Your task to perform on an android device: turn notification dots on Image 0: 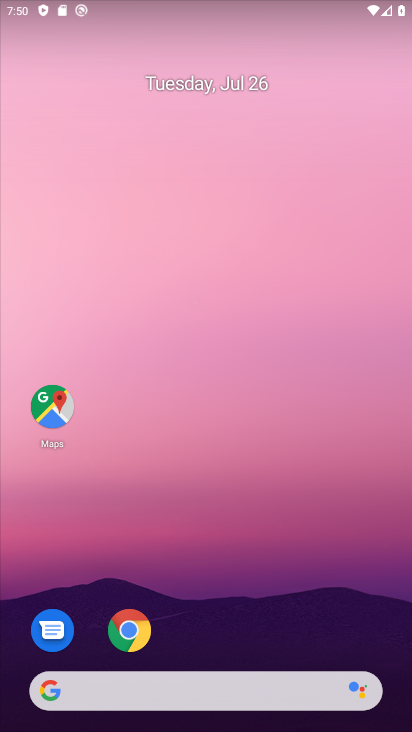
Step 0: drag from (198, 689) to (258, 198)
Your task to perform on an android device: turn notification dots on Image 1: 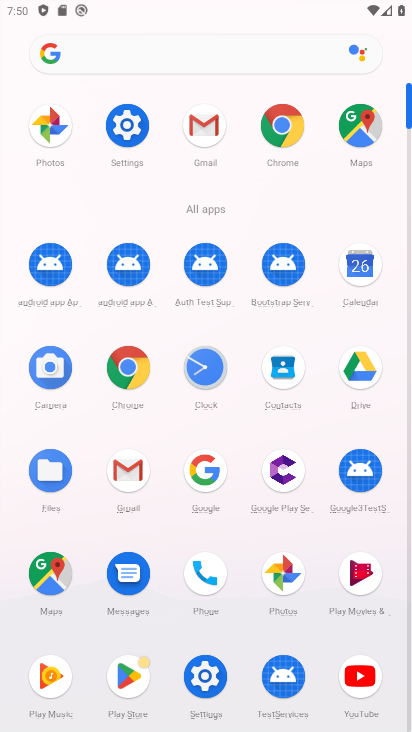
Step 1: click (205, 675)
Your task to perform on an android device: turn notification dots on Image 2: 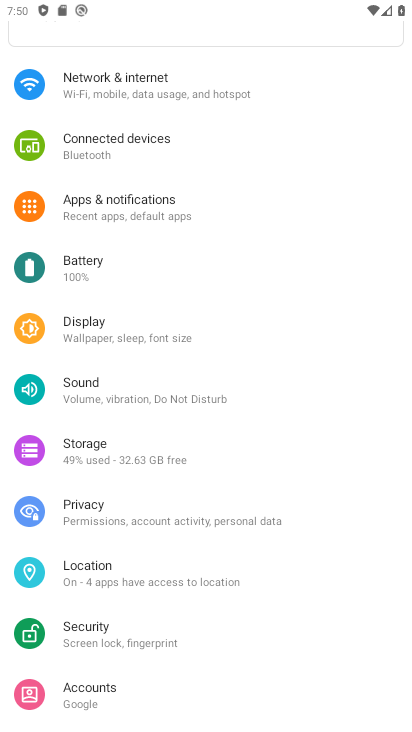
Step 2: click (139, 213)
Your task to perform on an android device: turn notification dots on Image 3: 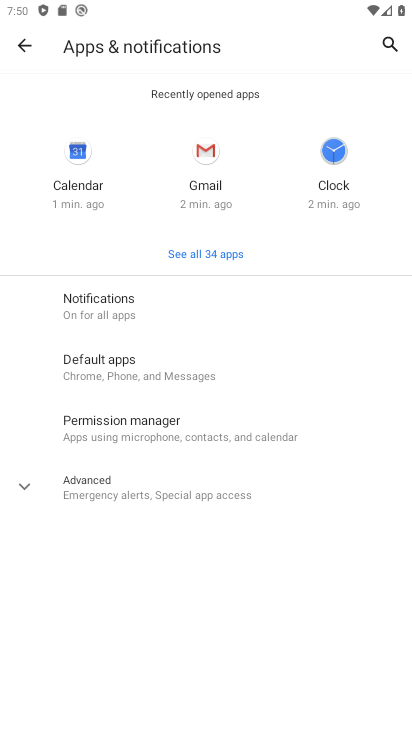
Step 3: click (121, 308)
Your task to perform on an android device: turn notification dots on Image 4: 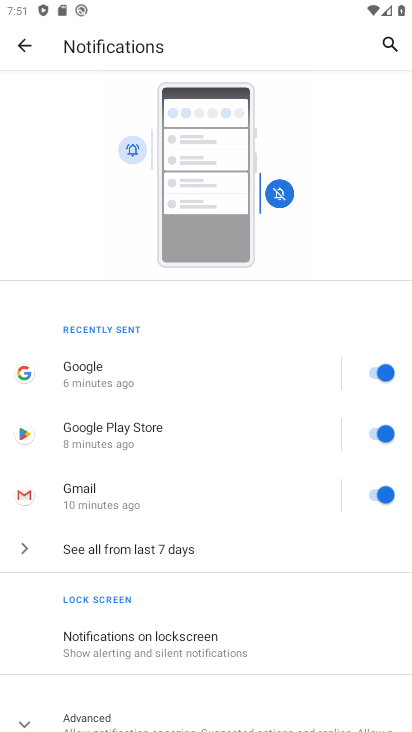
Step 4: drag from (132, 682) to (208, 542)
Your task to perform on an android device: turn notification dots on Image 5: 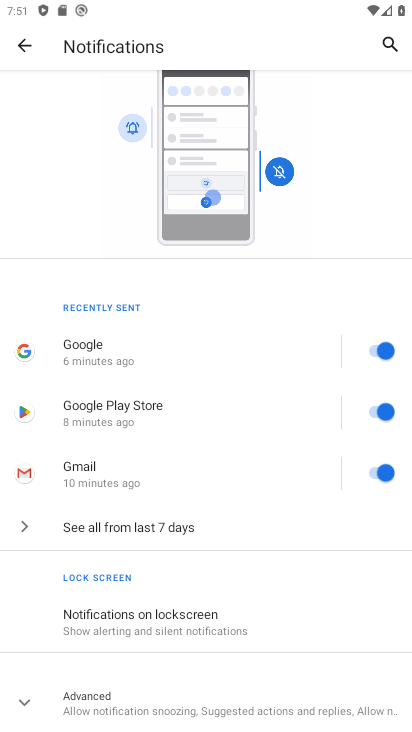
Step 5: click (161, 712)
Your task to perform on an android device: turn notification dots on Image 6: 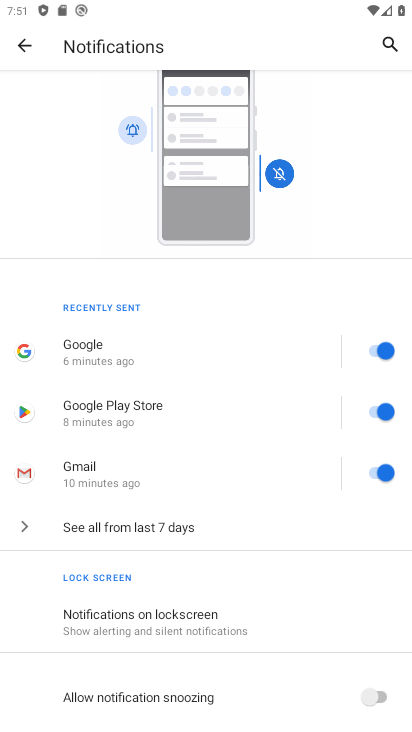
Step 6: task complete